Your task to perform on an android device: Go to location settings Image 0: 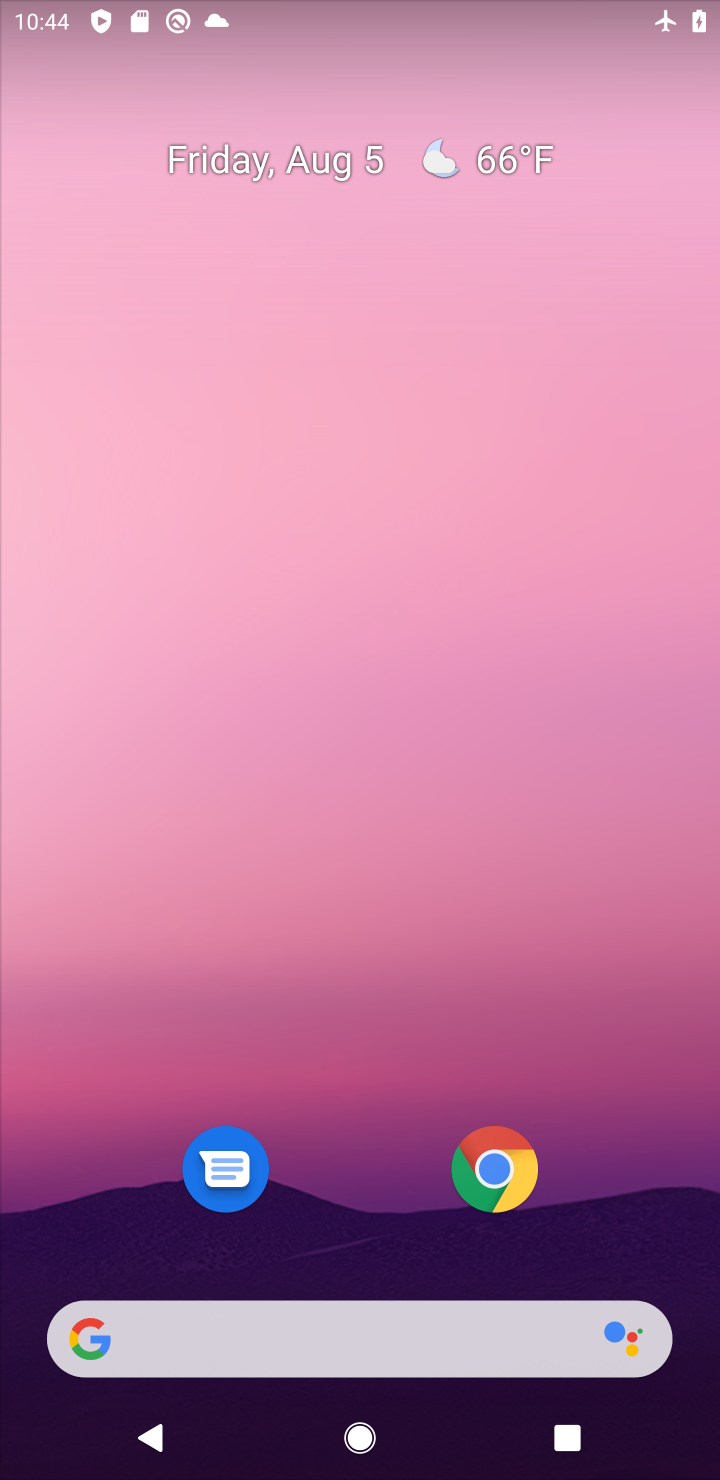
Step 0: drag from (644, 1233) to (565, 376)
Your task to perform on an android device: Go to location settings Image 1: 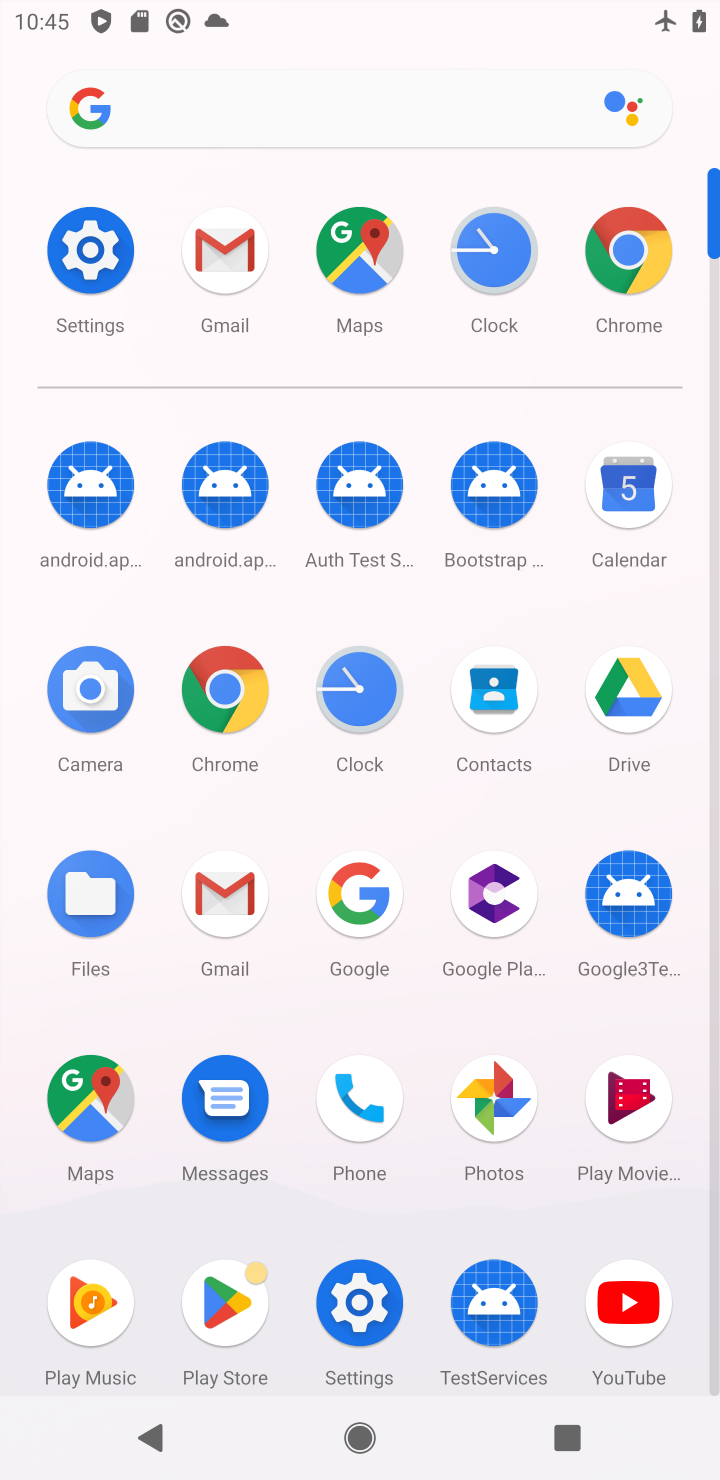
Step 1: click (359, 1304)
Your task to perform on an android device: Go to location settings Image 2: 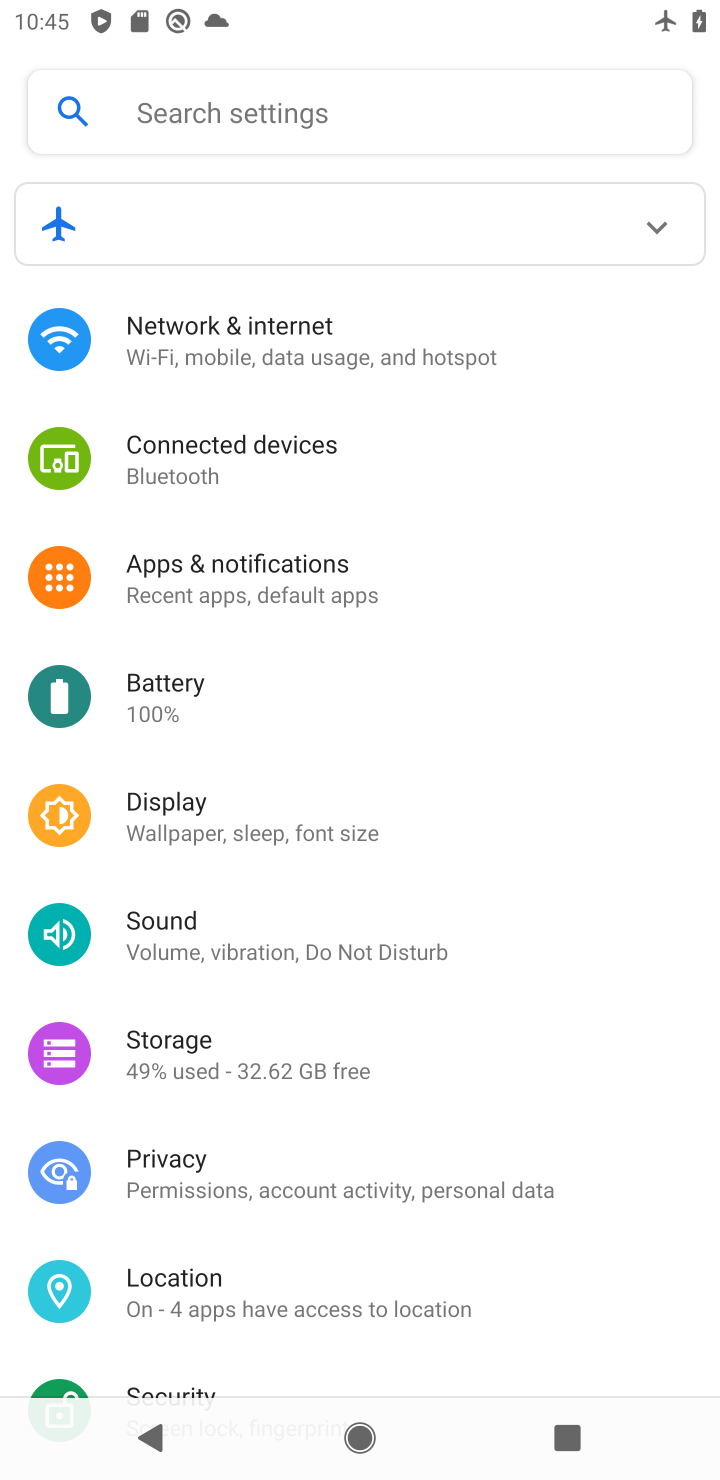
Step 2: click (161, 1306)
Your task to perform on an android device: Go to location settings Image 3: 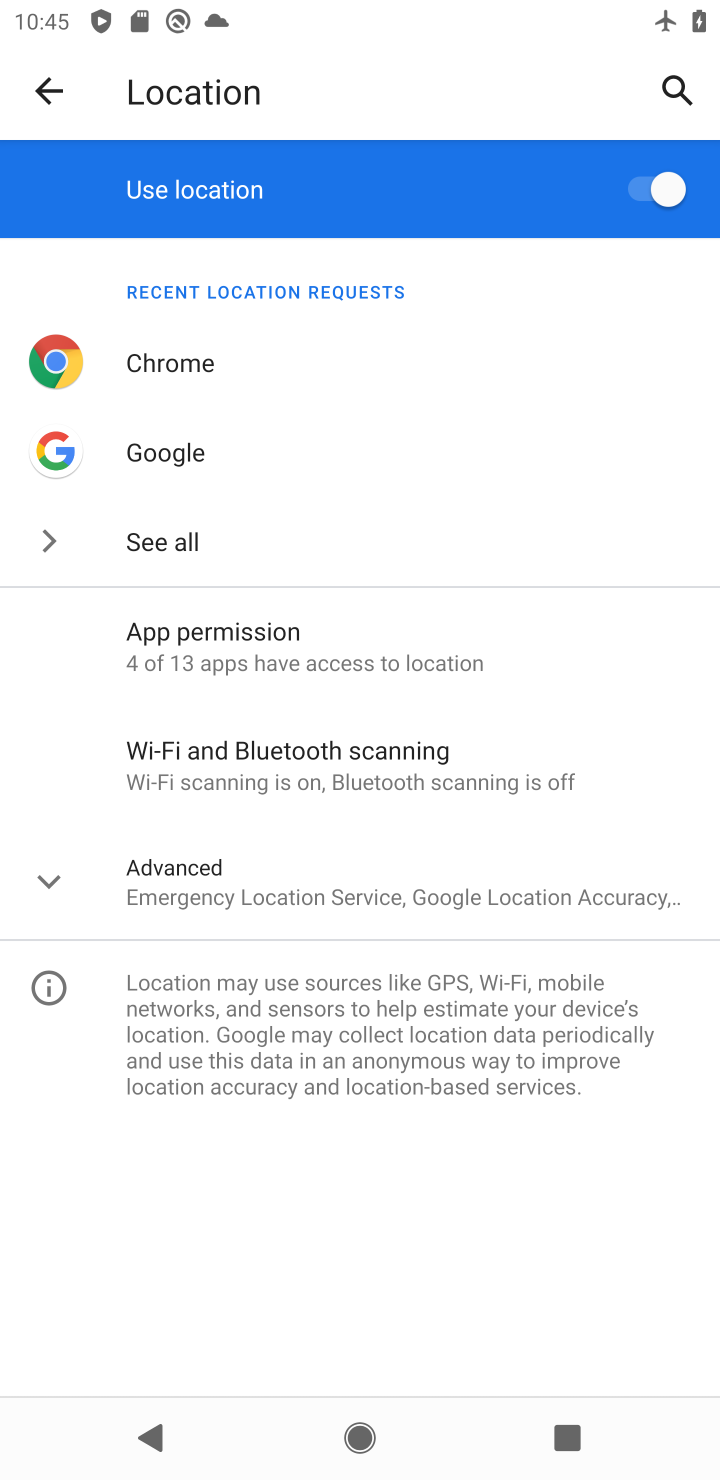
Step 3: task complete